Your task to perform on an android device: open app "TextNow: Call + Text Unlimited" (install if not already installed) and enter user name: "stoke@yahoo.com" and password: "prompted" Image 0: 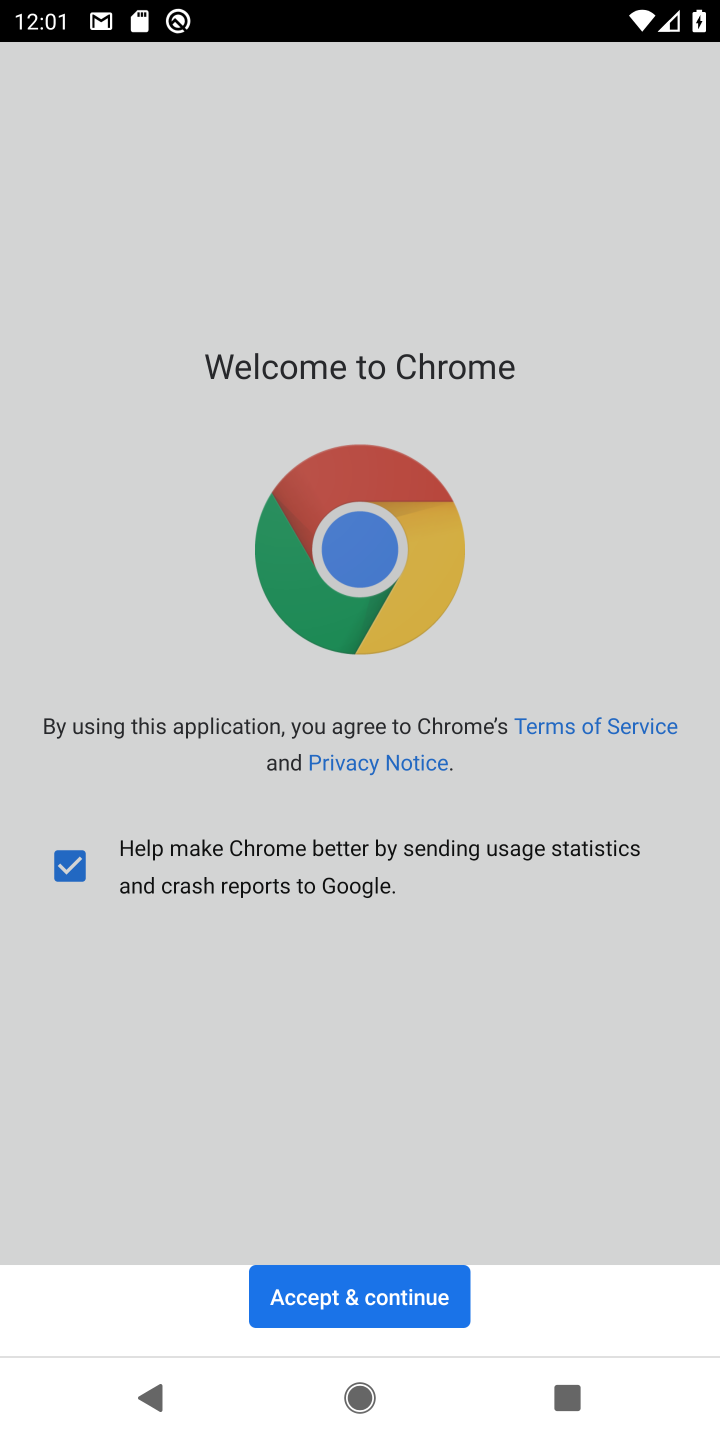
Step 0: press home button
Your task to perform on an android device: open app "TextNow: Call + Text Unlimited" (install if not already installed) and enter user name: "stoke@yahoo.com" and password: "prompted" Image 1: 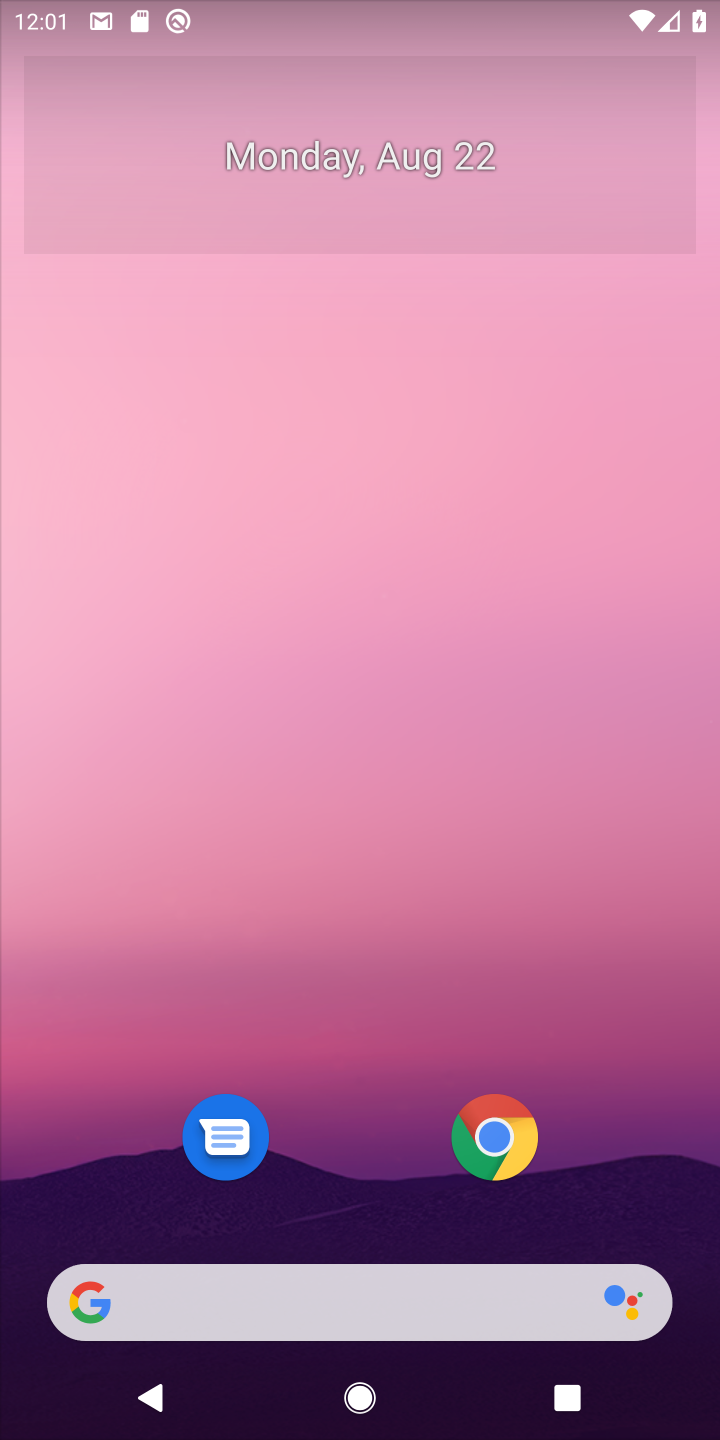
Step 1: drag from (656, 1210) to (586, 120)
Your task to perform on an android device: open app "TextNow: Call + Text Unlimited" (install if not already installed) and enter user name: "stoke@yahoo.com" and password: "prompted" Image 2: 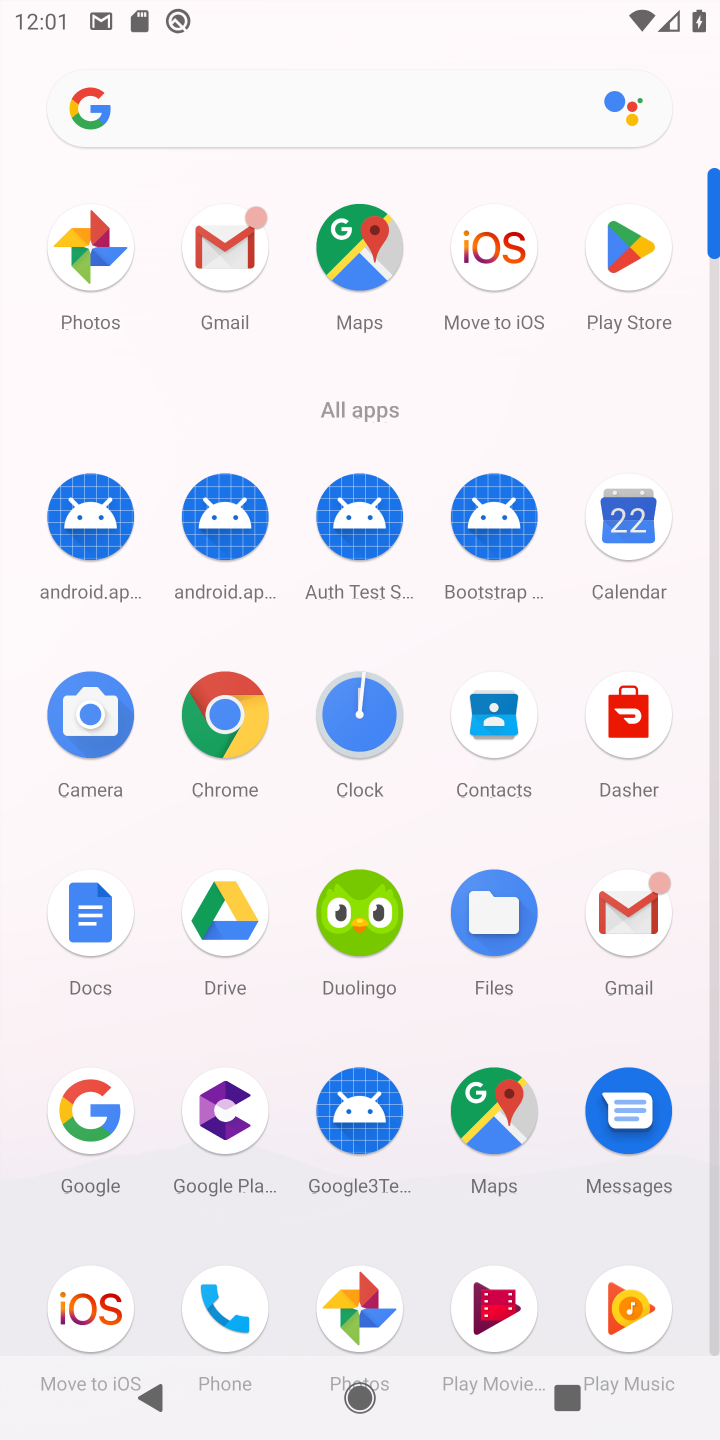
Step 2: drag from (562, 1251) to (559, 558)
Your task to perform on an android device: open app "TextNow: Call + Text Unlimited" (install if not already installed) and enter user name: "stoke@yahoo.com" and password: "prompted" Image 3: 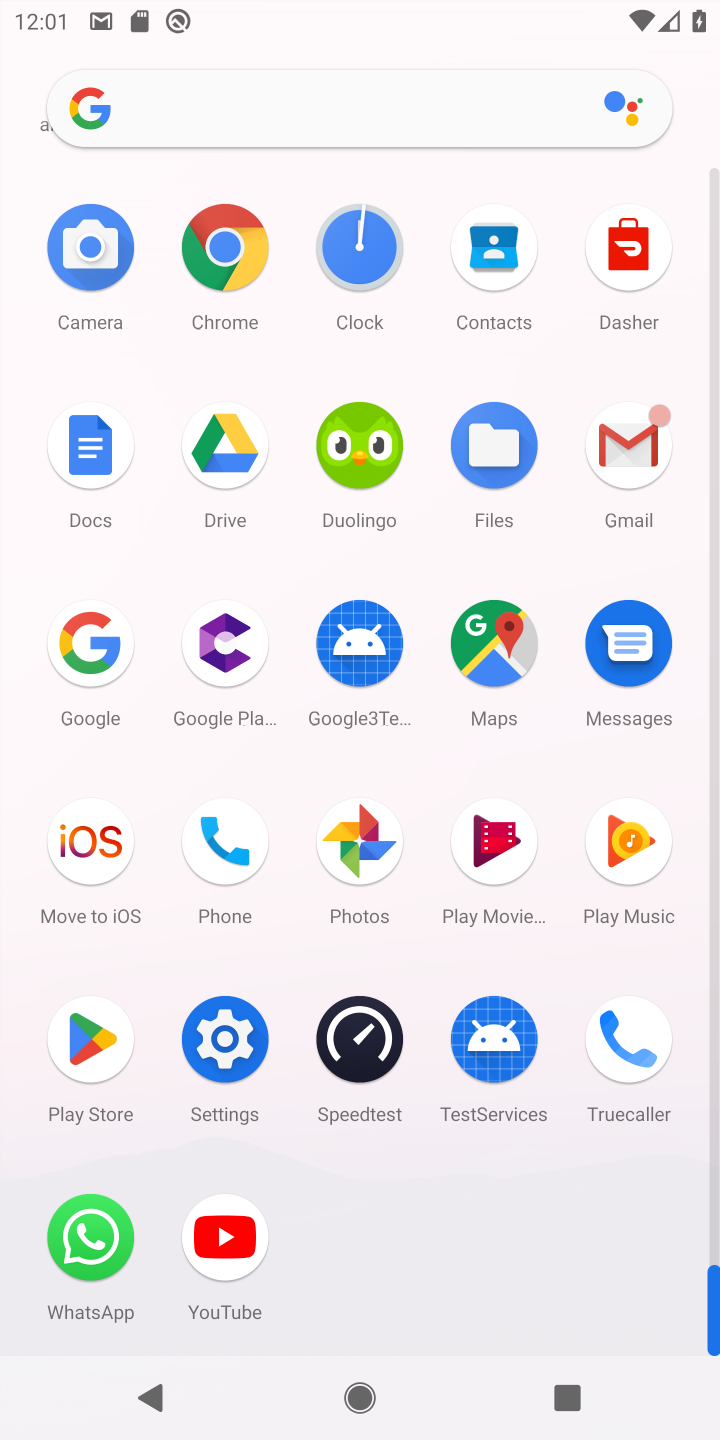
Step 3: click (92, 1036)
Your task to perform on an android device: open app "TextNow: Call + Text Unlimited" (install if not already installed) and enter user name: "stoke@yahoo.com" and password: "prompted" Image 4: 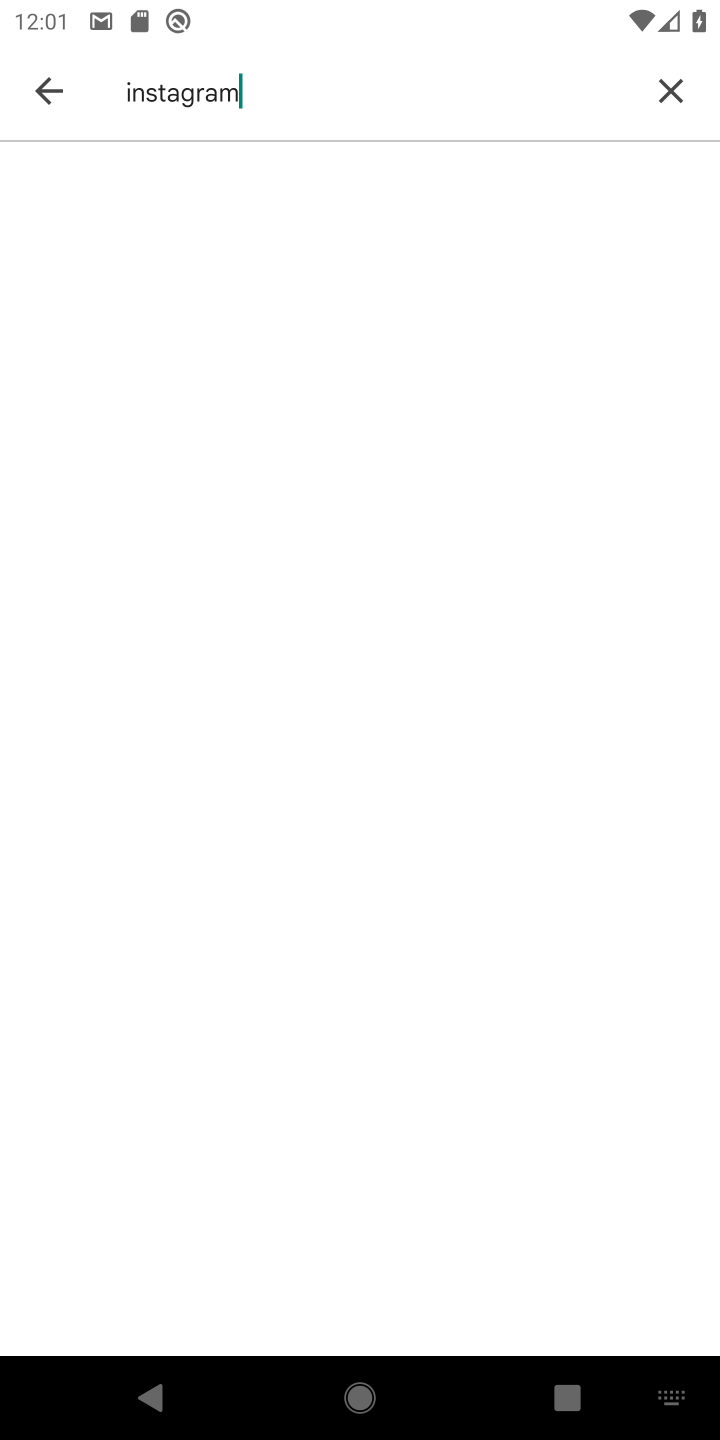
Step 4: click (671, 76)
Your task to perform on an android device: open app "TextNow: Call + Text Unlimited" (install if not already installed) and enter user name: "stoke@yahoo.com" and password: "prompted" Image 5: 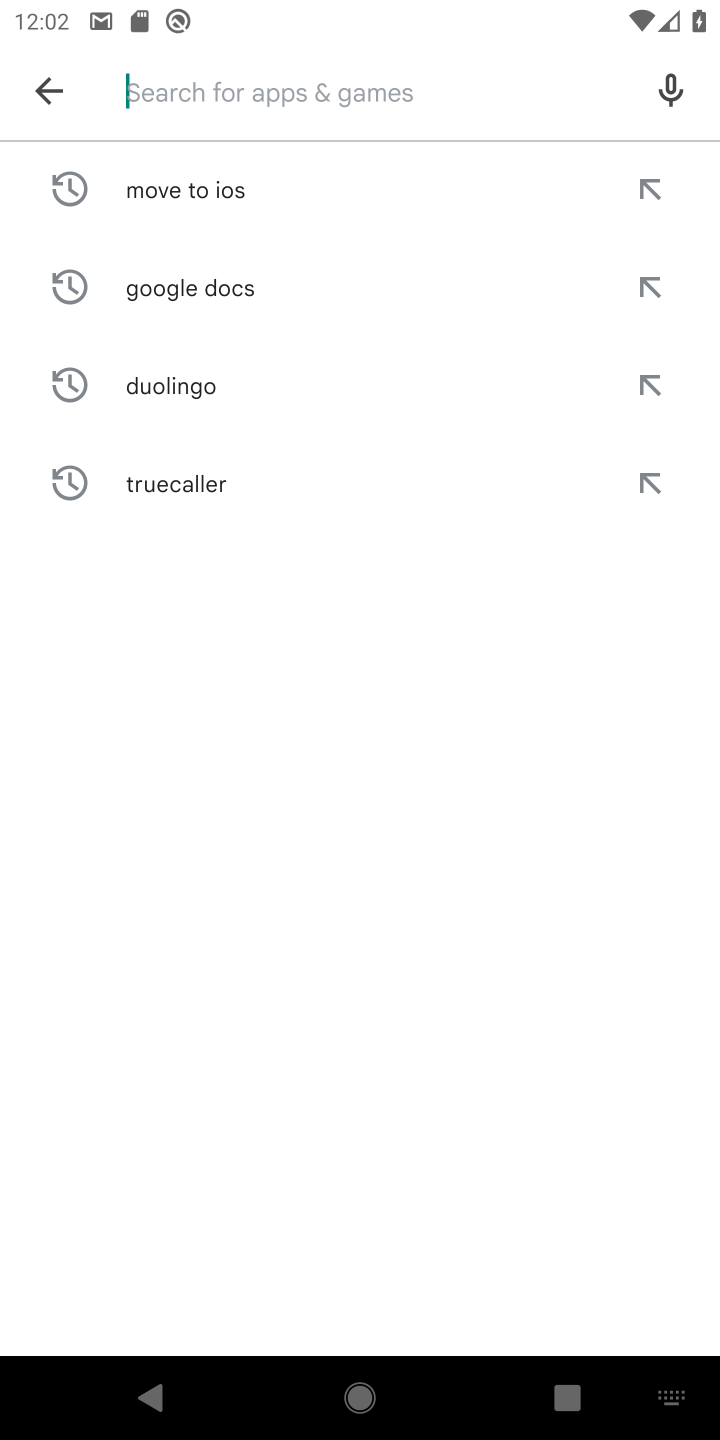
Step 5: type "TextNow: Call + Text Unlimited"
Your task to perform on an android device: open app "TextNow: Call + Text Unlimited" (install if not already installed) and enter user name: "stoke@yahoo.com" and password: "prompted" Image 6: 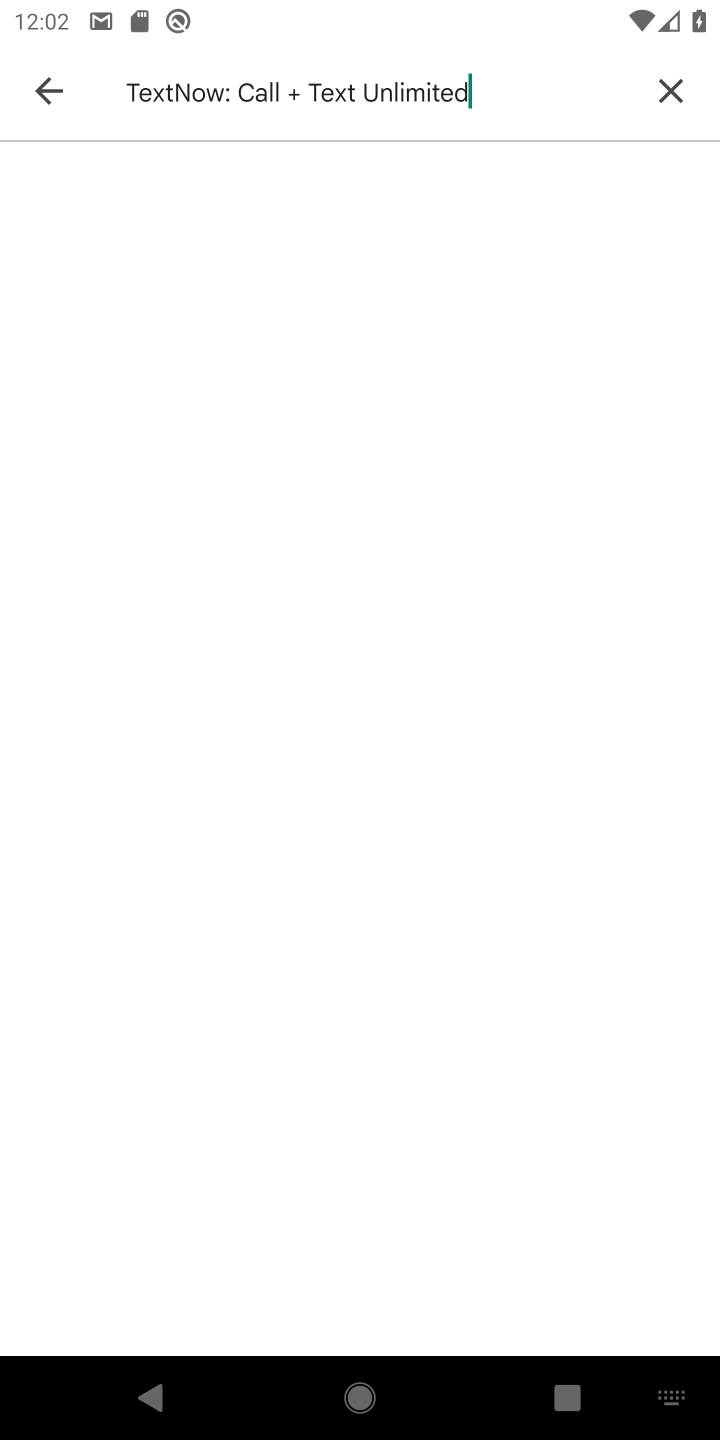
Step 6: task complete